Your task to perform on an android device: toggle javascript in the chrome app Image 0: 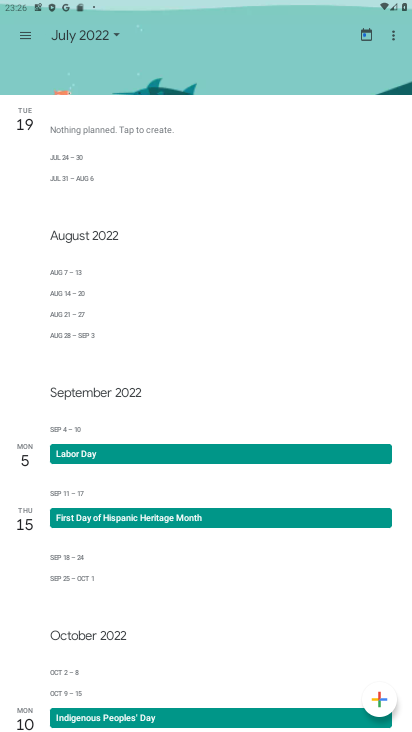
Step 0: press home button
Your task to perform on an android device: toggle javascript in the chrome app Image 1: 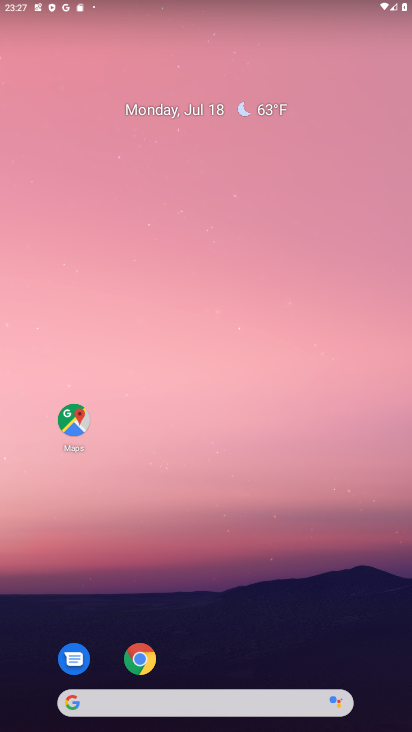
Step 1: click (134, 675)
Your task to perform on an android device: toggle javascript in the chrome app Image 2: 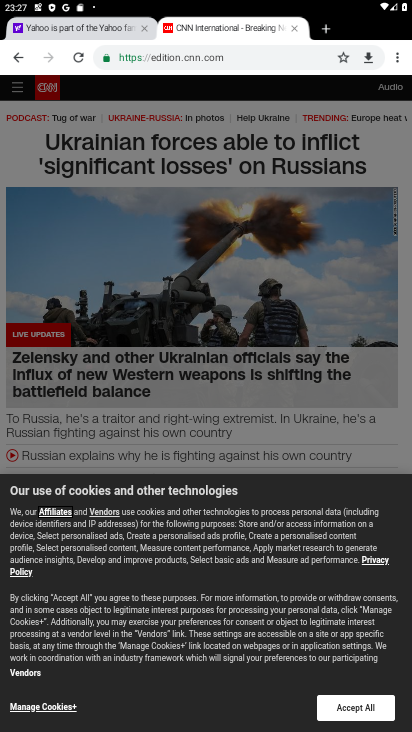
Step 2: drag from (392, 64) to (282, 394)
Your task to perform on an android device: toggle javascript in the chrome app Image 3: 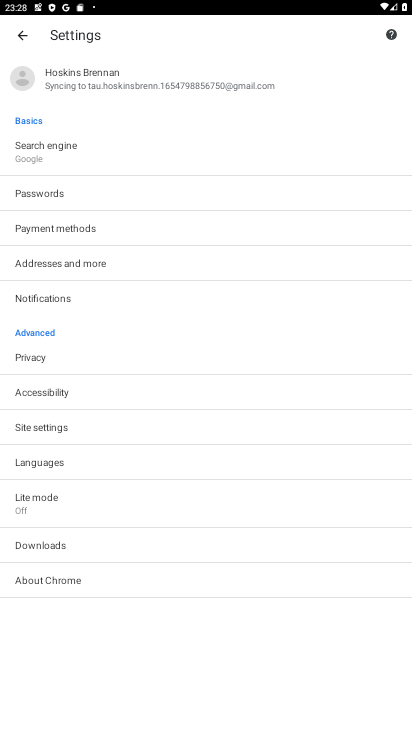
Step 3: click (47, 430)
Your task to perform on an android device: toggle javascript in the chrome app Image 4: 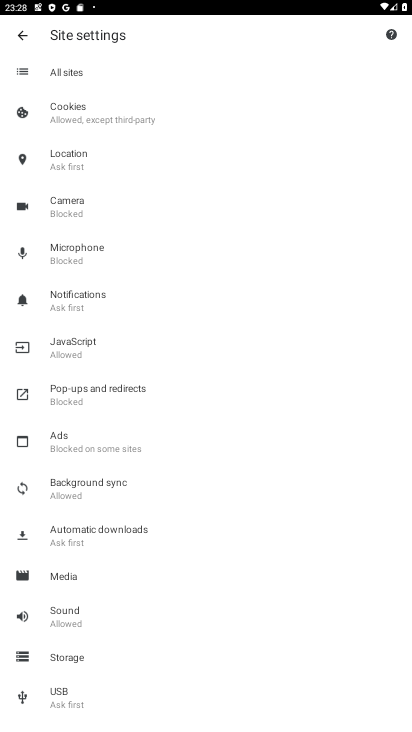
Step 4: click (75, 340)
Your task to perform on an android device: toggle javascript in the chrome app Image 5: 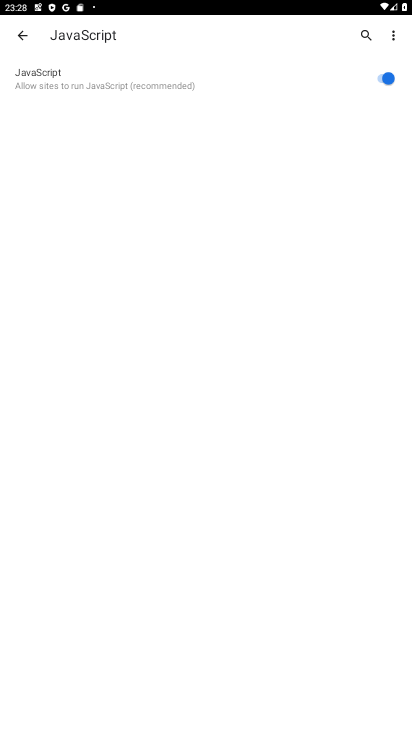
Step 5: task complete